Your task to perform on an android device: Turn off the flashlight Image 0: 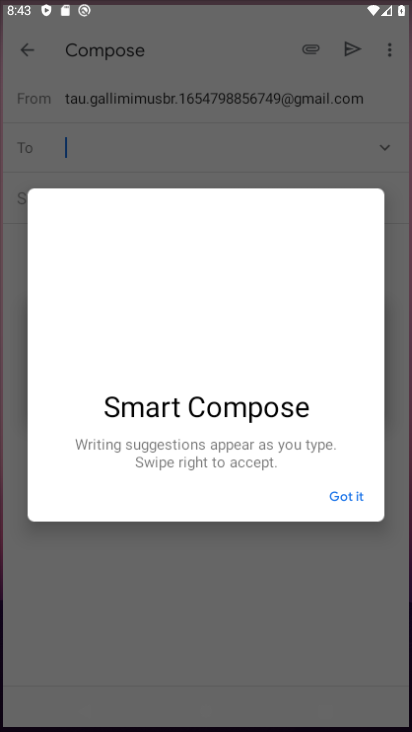
Step 0: drag from (270, 329) to (270, 55)
Your task to perform on an android device: Turn off the flashlight Image 1: 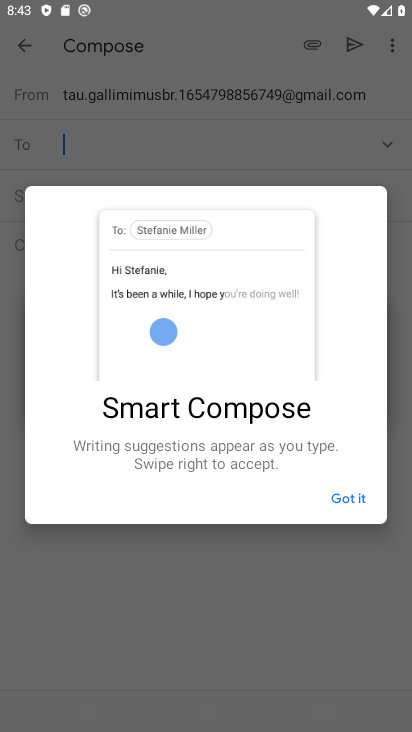
Step 1: click (334, 493)
Your task to perform on an android device: Turn off the flashlight Image 2: 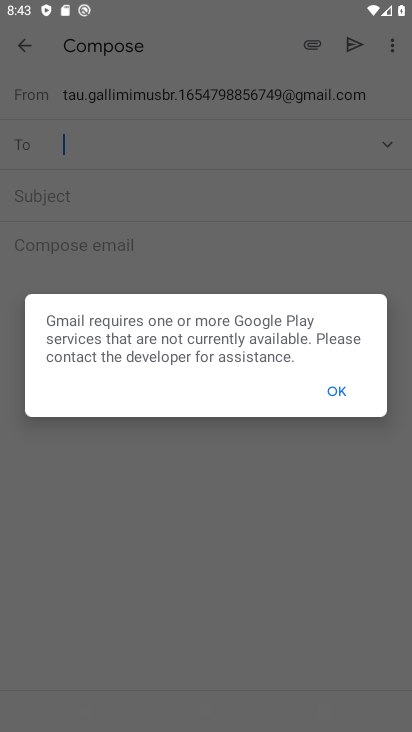
Step 2: click (338, 378)
Your task to perform on an android device: Turn off the flashlight Image 3: 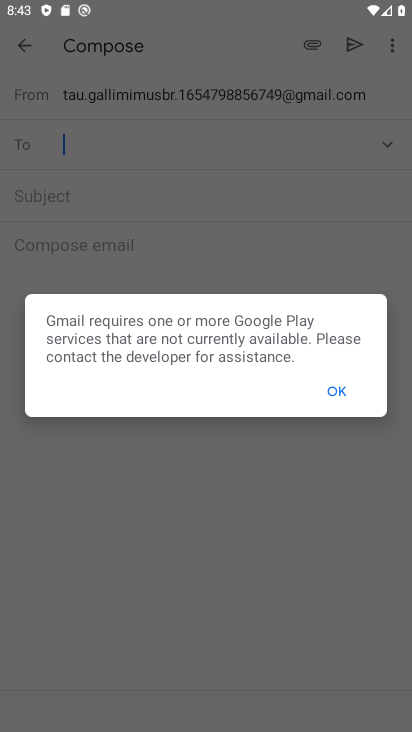
Step 3: click (336, 386)
Your task to perform on an android device: Turn off the flashlight Image 4: 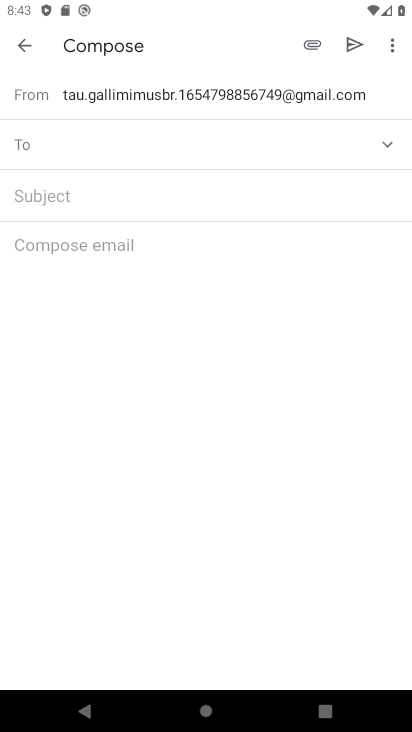
Step 4: task complete